Your task to perform on an android device: see tabs open on other devices in the chrome app Image 0: 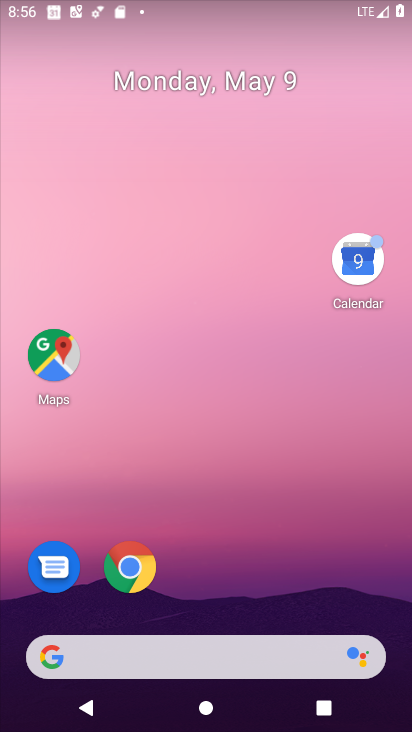
Step 0: drag from (208, 627) to (288, 102)
Your task to perform on an android device: see tabs open on other devices in the chrome app Image 1: 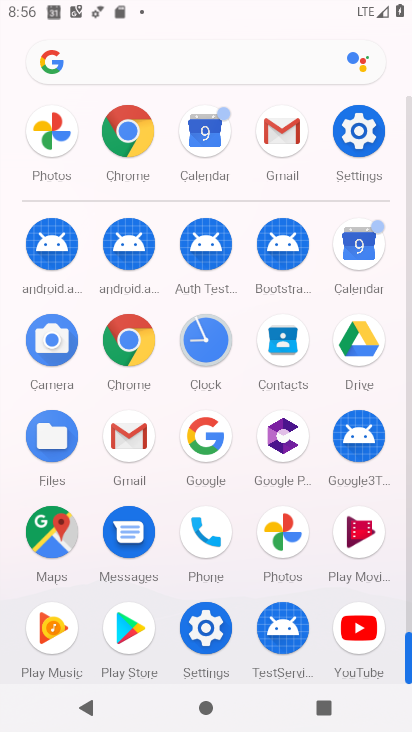
Step 1: click (131, 347)
Your task to perform on an android device: see tabs open on other devices in the chrome app Image 2: 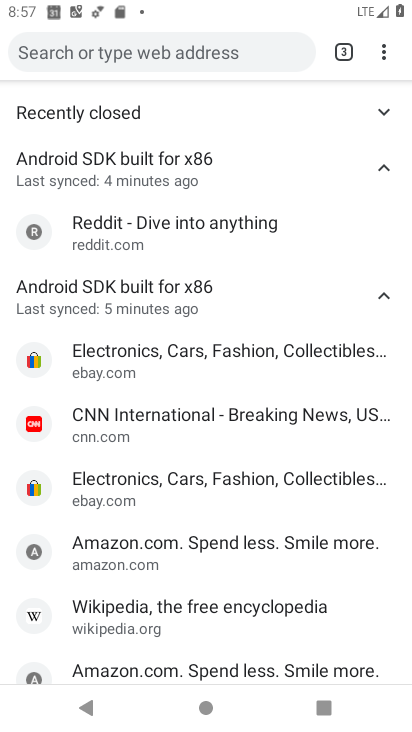
Step 2: click (382, 43)
Your task to perform on an android device: see tabs open on other devices in the chrome app Image 3: 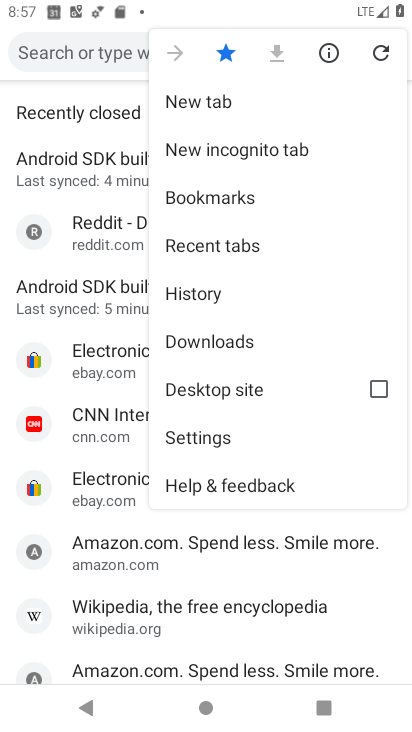
Step 3: click (236, 432)
Your task to perform on an android device: see tabs open on other devices in the chrome app Image 4: 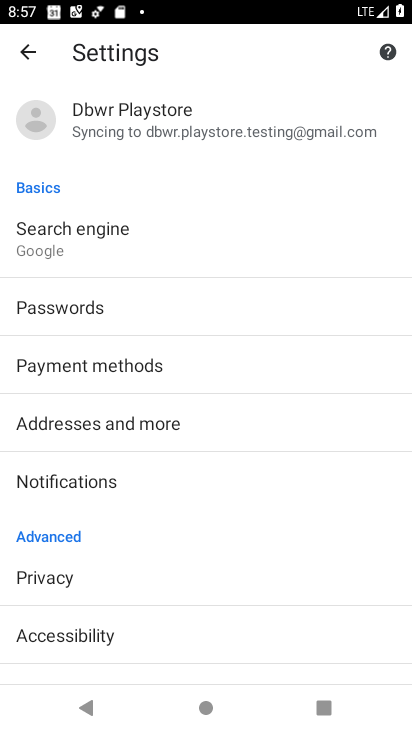
Step 4: drag from (190, 589) to (267, 154)
Your task to perform on an android device: see tabs open on other devices in the chrome app Image 5: 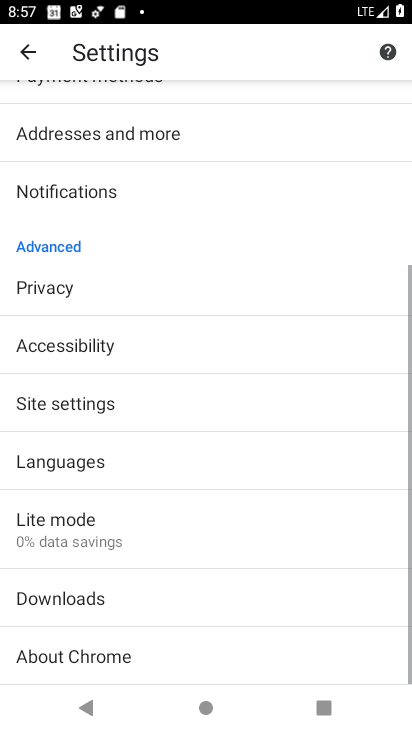
Step 5: drag from (148, 213) to (226, 676)
Your task to perform on an android device: see tabs open on other devices in the chrome app Image 6: 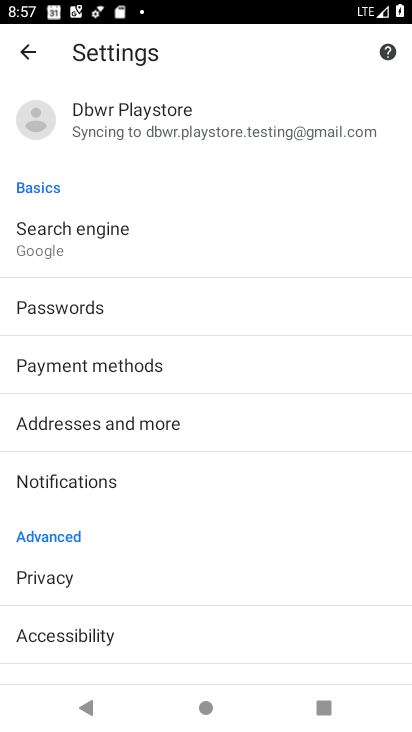
Step 6: drag from (179, 480) to (234, 243)
Your task to perform on an android device: see tabs open on other devices in the chrome app Image 7: 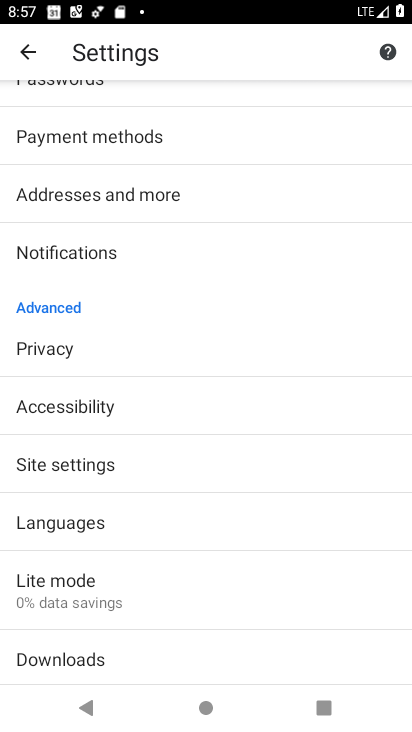
Step 7: drag from (174, 502) to (273, 87)
Your task to perform on an android device: see tabs open on other devices in the chrome app Image 8: 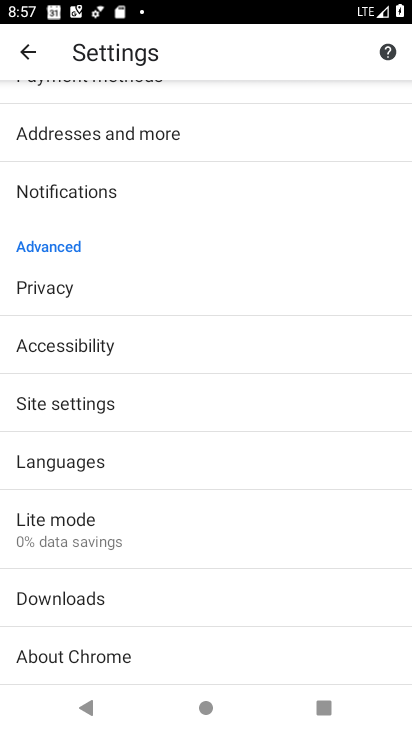
Step 8: drag from (206, 511) to (221, 220)
Your task to perform on an android device: see tabs open on other devices in the chrome app Image 9: 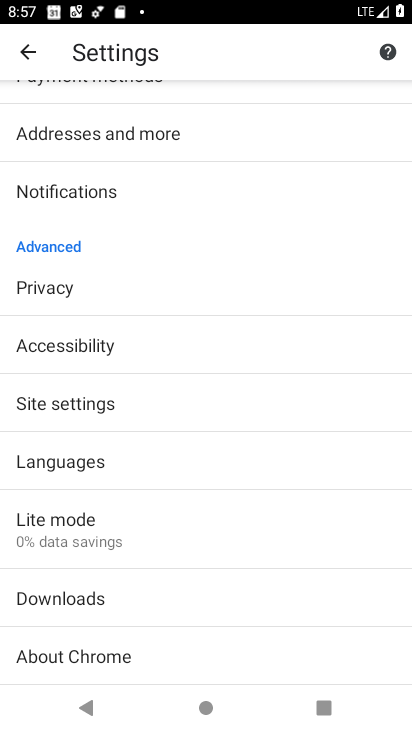
Step 9: drag from (258, 616) to (275, 185)
Your task to perform on an android device: see tabs open on other devices in the chrome app Image 10: 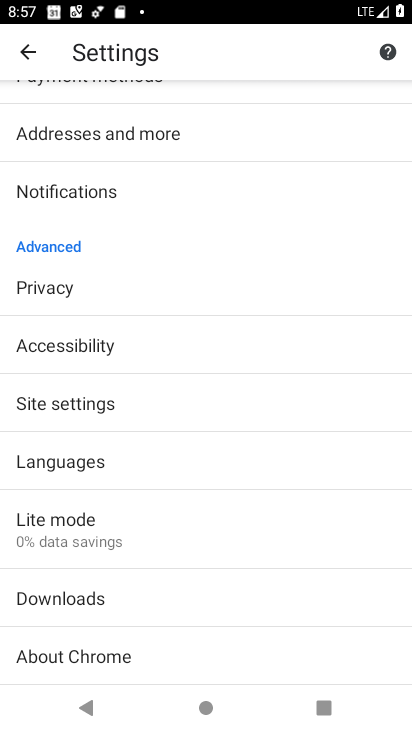
Step 10: drag from (215, 142) to (257, 702)
Your task to perform on an android device: see tabs open on other devices in the chrome app Image 11: 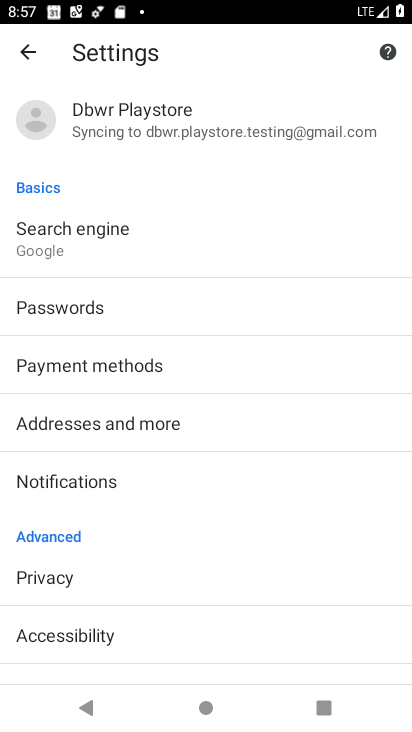
Step 11: click (34, 57)
Your task to perform on an android device: see tabs open on other devices in the chrome app Image 12: 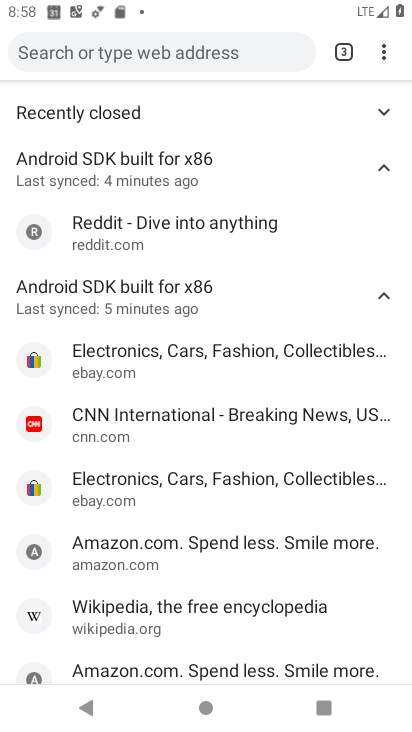
Step 12: drag from (378, 46) to (236, 250)
Your task to perform on an android device: see tabs open on other devices in the chrome app Image 13: 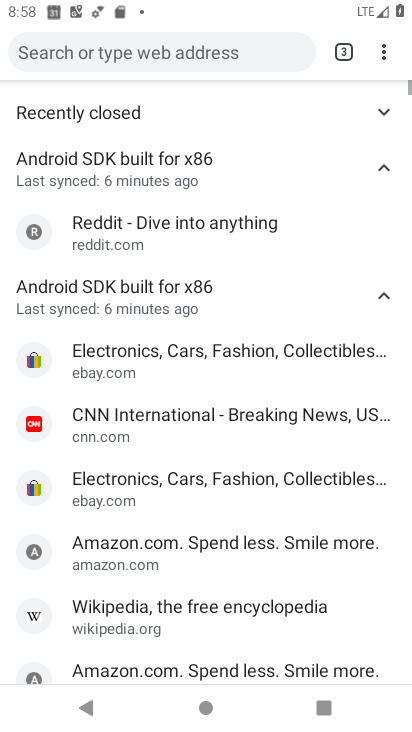
Step 13: drag from (228, 589) to (274, 299)
Your task to perform on an android device: see tabs open on other devices in the chrome app Image 14: 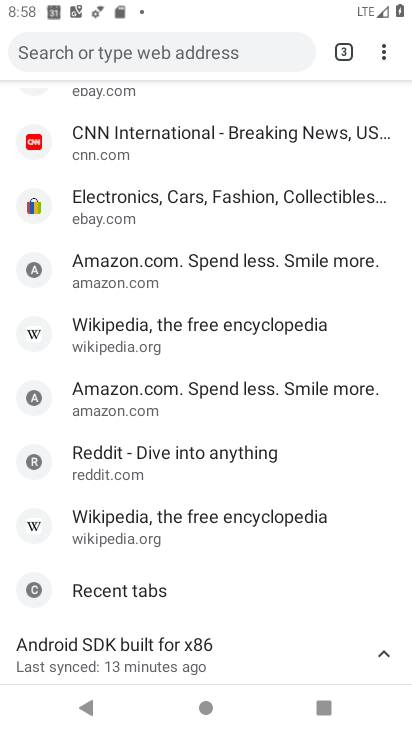
Step 14: drag from (280, 238) to (238, 643)
Your task to perform on an android device: see tabs open on other devices in the chrome app Image 15: 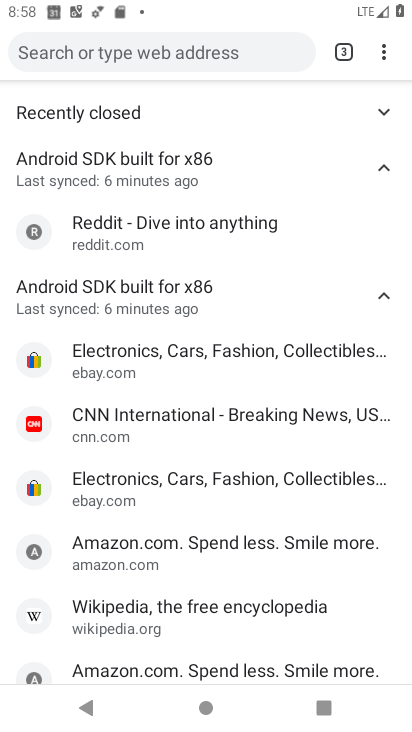
Step 15: drag from (299, 370) to (339, 629)
Your task to perform on an android device: see tabs open on other devices in the chrome app Image 16: 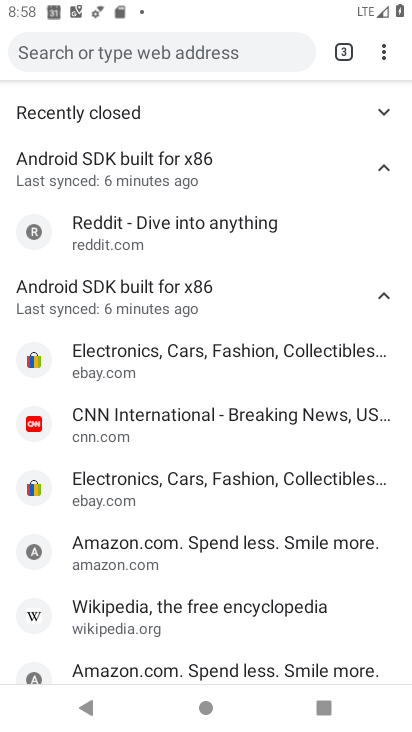
Step 16: drag from (384, 52) to (255, 257)
Your task to perform on an android device: see tabs open on other devices in the chrome app Image 17: 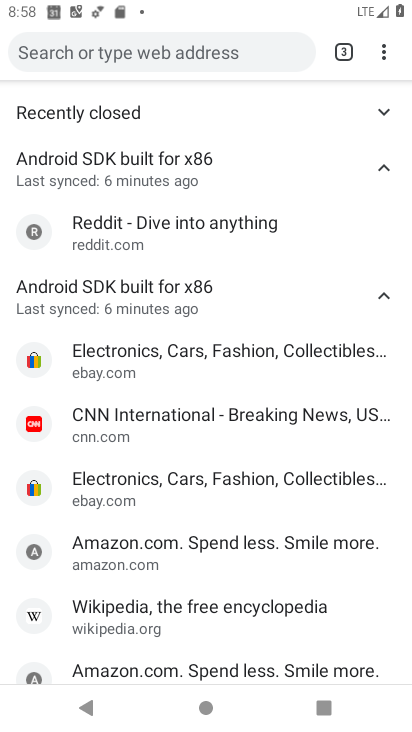
Step 17: drag from (243, 567) to (285, 256)
Your task to perform on an android device: see tabs open on other devices in the chrome app Image 18: 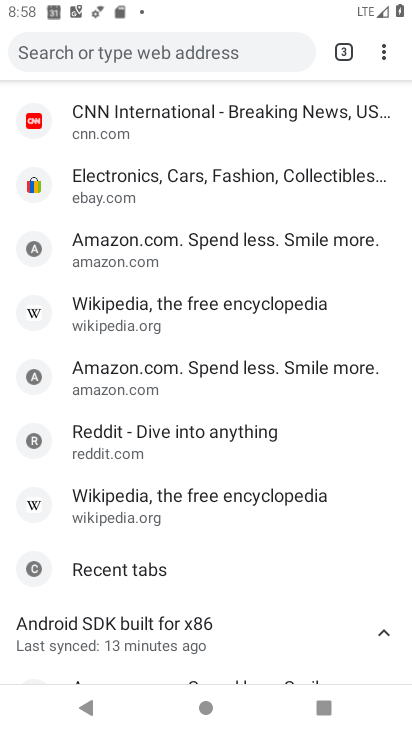
Step 18: click (386, 48)
Your task to perform on an android device: see tabs open on other devices in the chrome app Image 19: 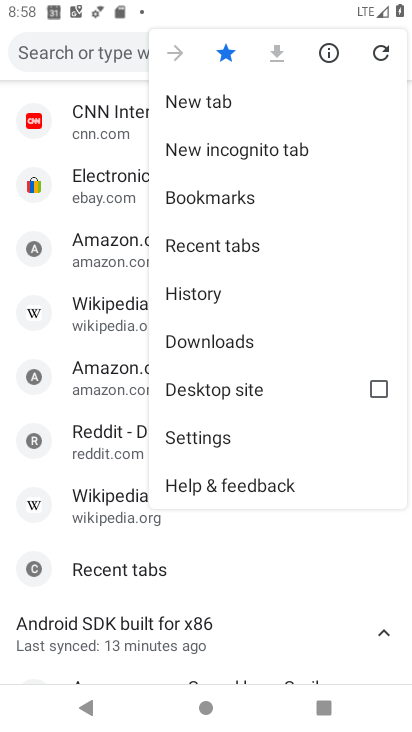
Step 19: click (235, 199)
Your task to perform on an android device: see tabs open on other devices in the chrome app Image 20: 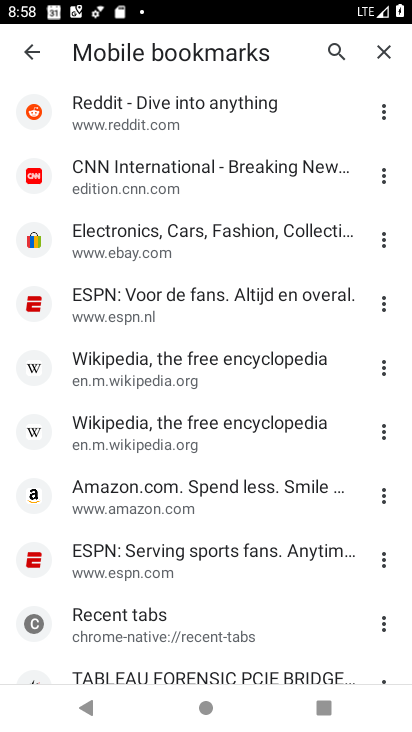
Step 20: click (388, 41)
Your task to perform on an android device: see tabs open on other devices in the chrome app Image 21: 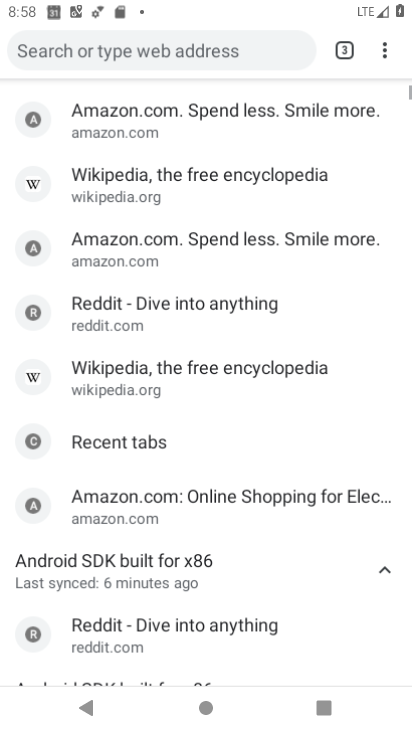
Step 21: task complete